Your task to perform on an android device: Show me productivity apps on the Play Store Image 0: 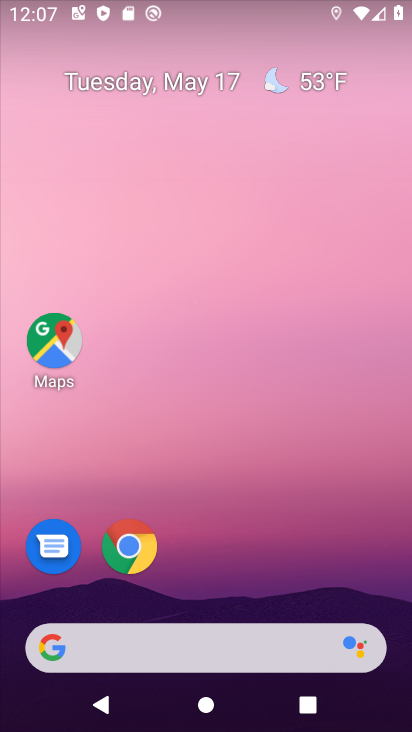
Step 0: drag from (272, 181) to (274, 145)
Your task to perform on an android device: Show me productivity apps on the Play Store Image 1: 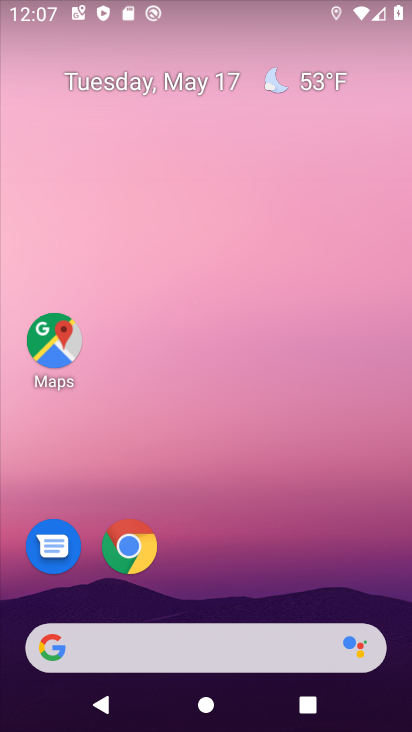
Step 1: drag from (229, 562) to (230, 132)
Your task to perform on an android device: Show me productivity apps on the Play Store Image 2: 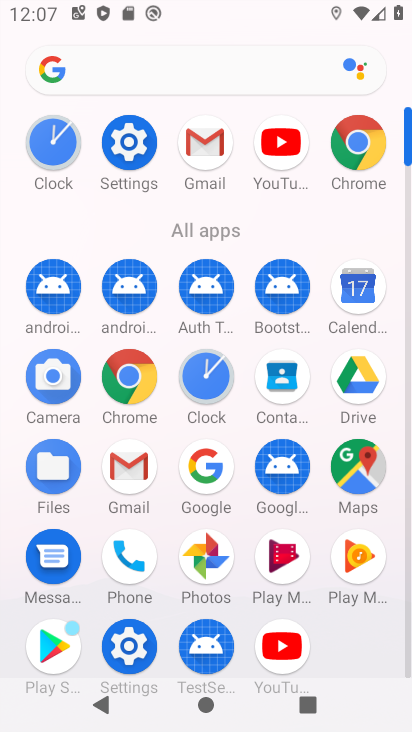
Step 2: click (51, 640)
Your task to perform on an android device: Show me productivity apps on the Play Store Image 3: 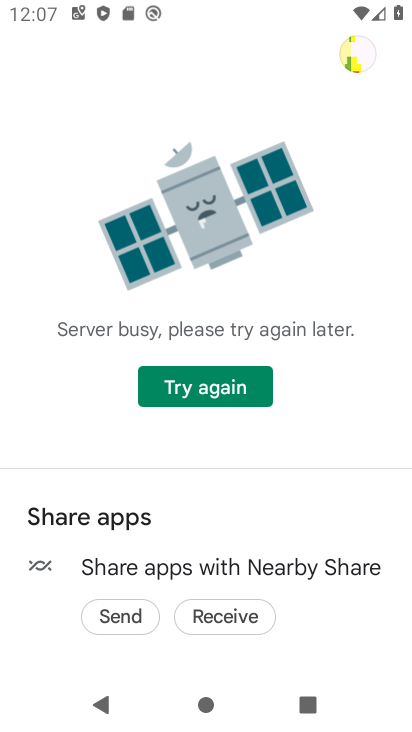
Step 3: task complete